Your task to perform on an android device: Go to notification settings Image 0: 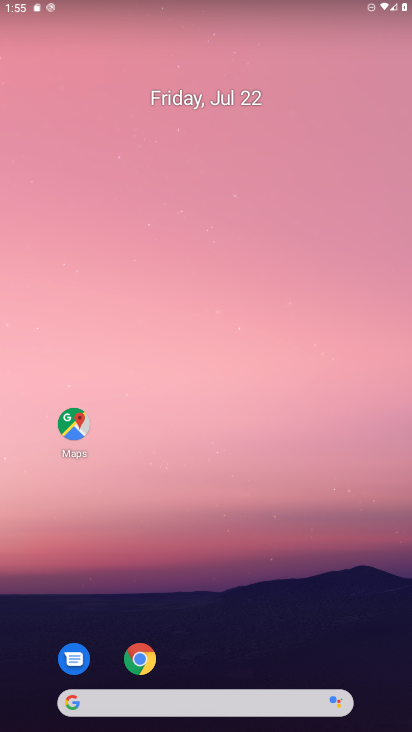
Step 0: drag from (214, 702) to (214, 132)
Your task to perform on an android device: Go to notification settings Image 1: 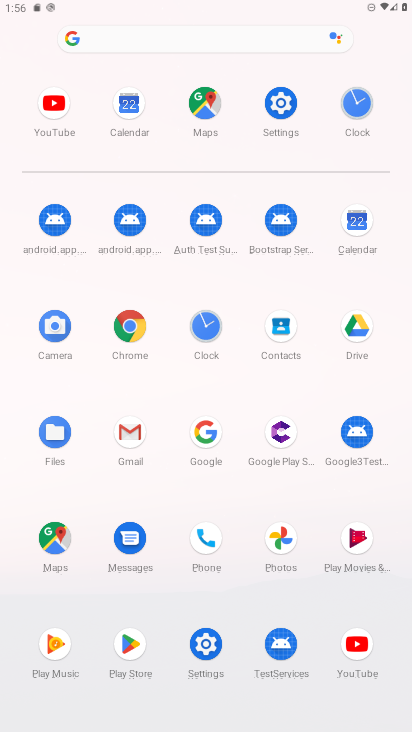
Step 1: click (207, 645)
Your task to perform on an android device: Go to notification settings Image 2: 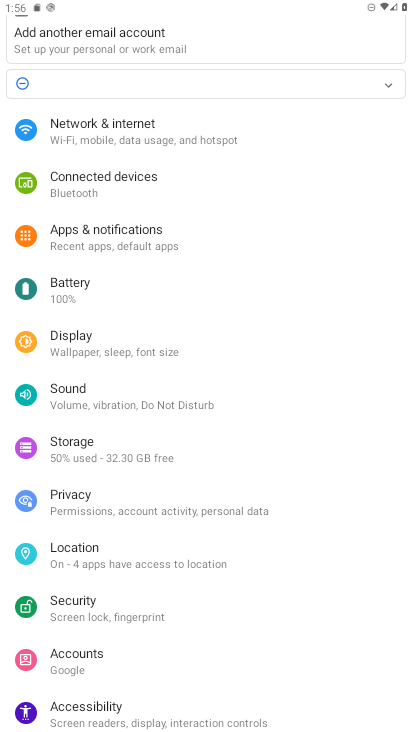
Step 2: click (112, 246)
Your task to perform on an android device: Go to notification settings Image 3: 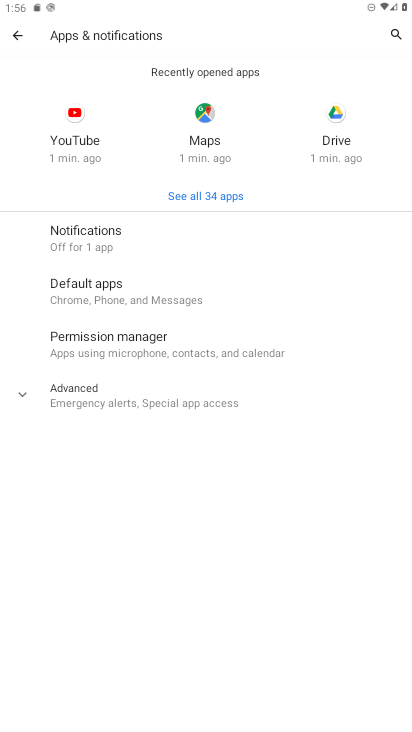
Step 3: click (97, 242)
Your task to perform on an android device: Go to notification settings Image 4: 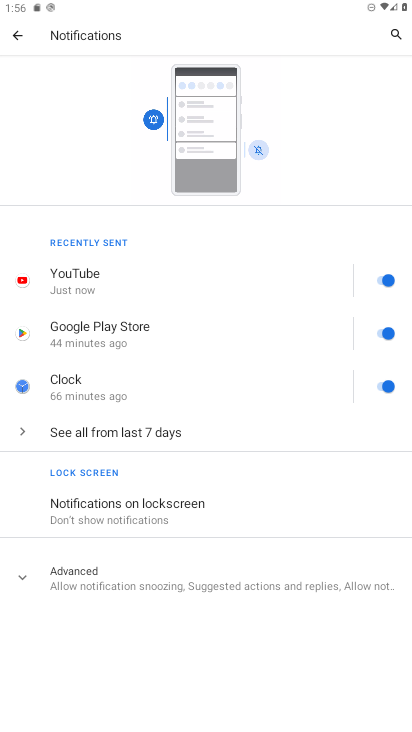
Step 4: task complete